Your task to perform on an android device: turn off notifications settings in the gmail app Image 0: 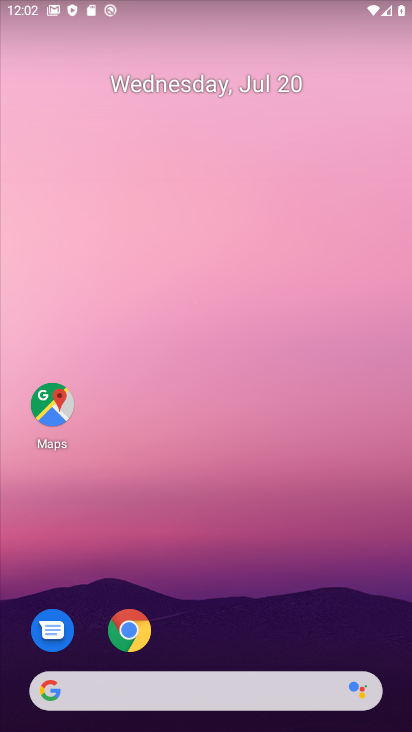
Step 0: drag from (233, 569) to (144, 120)
Your task to perform on an android device: turn off notifications settings in the gmail app Image 1: 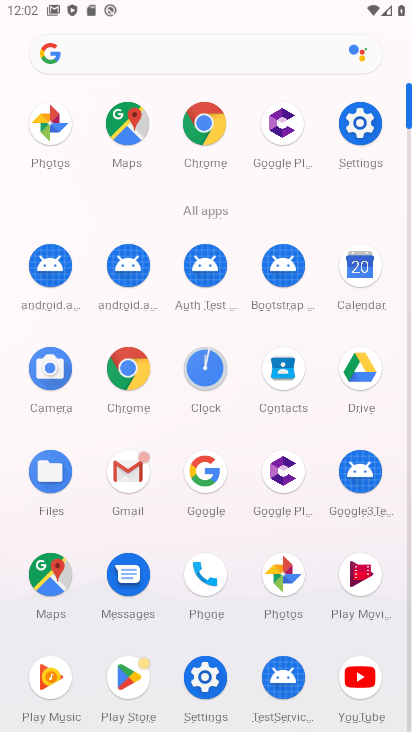
Step 1: click (130, 467)
Your task to perform on an android device: turn off notifications settings in the gmail app Image 2: 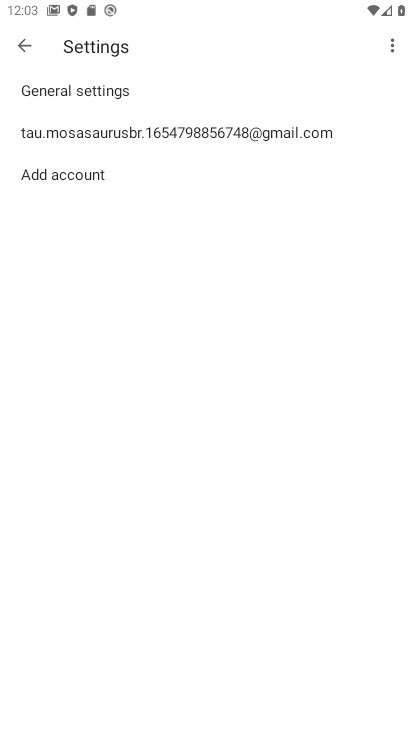
Step 2: click (79, 91)
Your task to perform on an android device: turn off notifications settings in the gmail app Image 3: 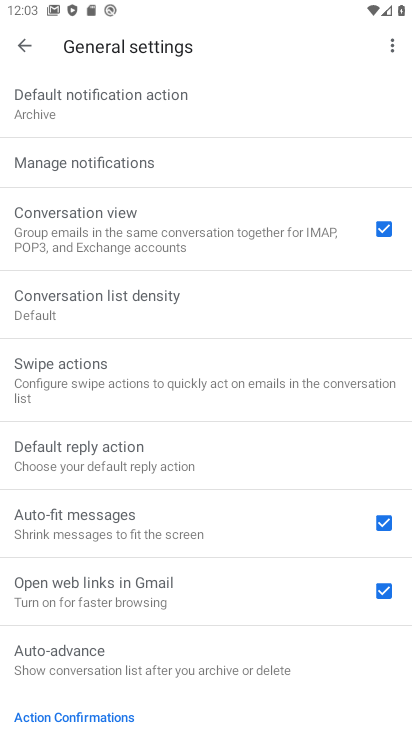
Step 3: click (98, 158)
Your task to perform on an android device: turn off notifications settings in the gmail app Image 4: 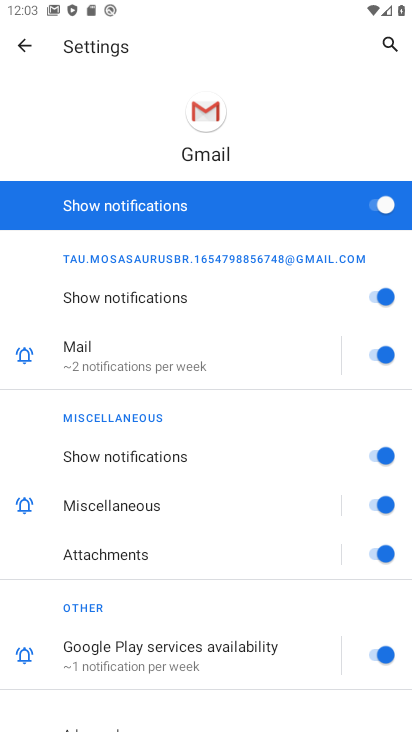
Step 4: click (385, 205)
Your task to perform on an android device: turn off notifications settings in the gmail app Image 5: 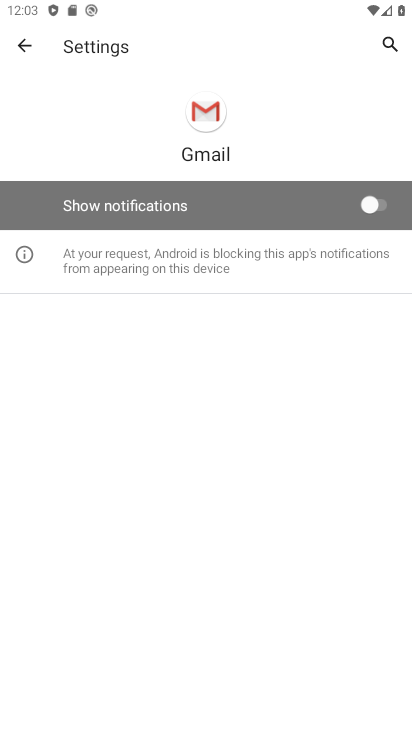
Step 5: task complete